Your task to perform on an android device: install app "Messenger Lite" Image 0: 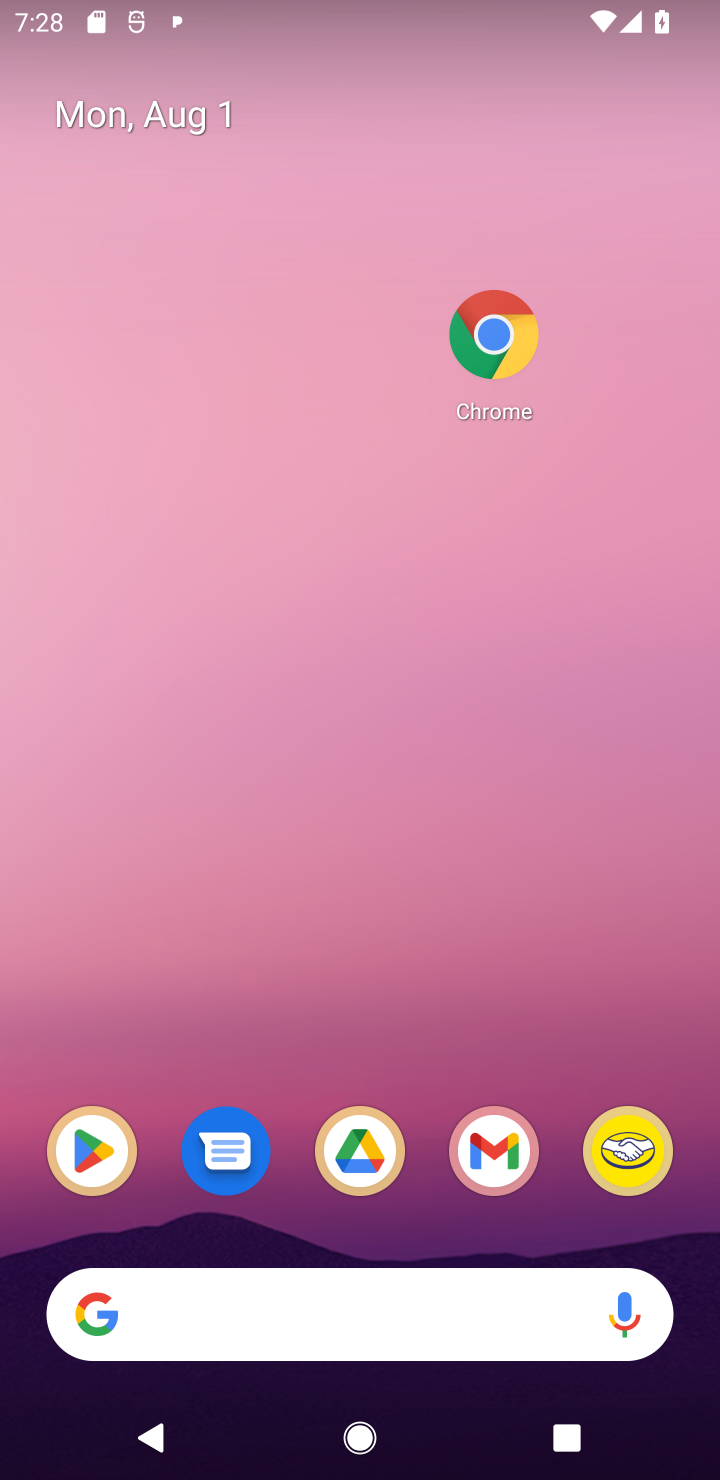
Step 0: click (106, 1173)
Your task to perform on an android device: install app "Messenger Lite" Image 1: 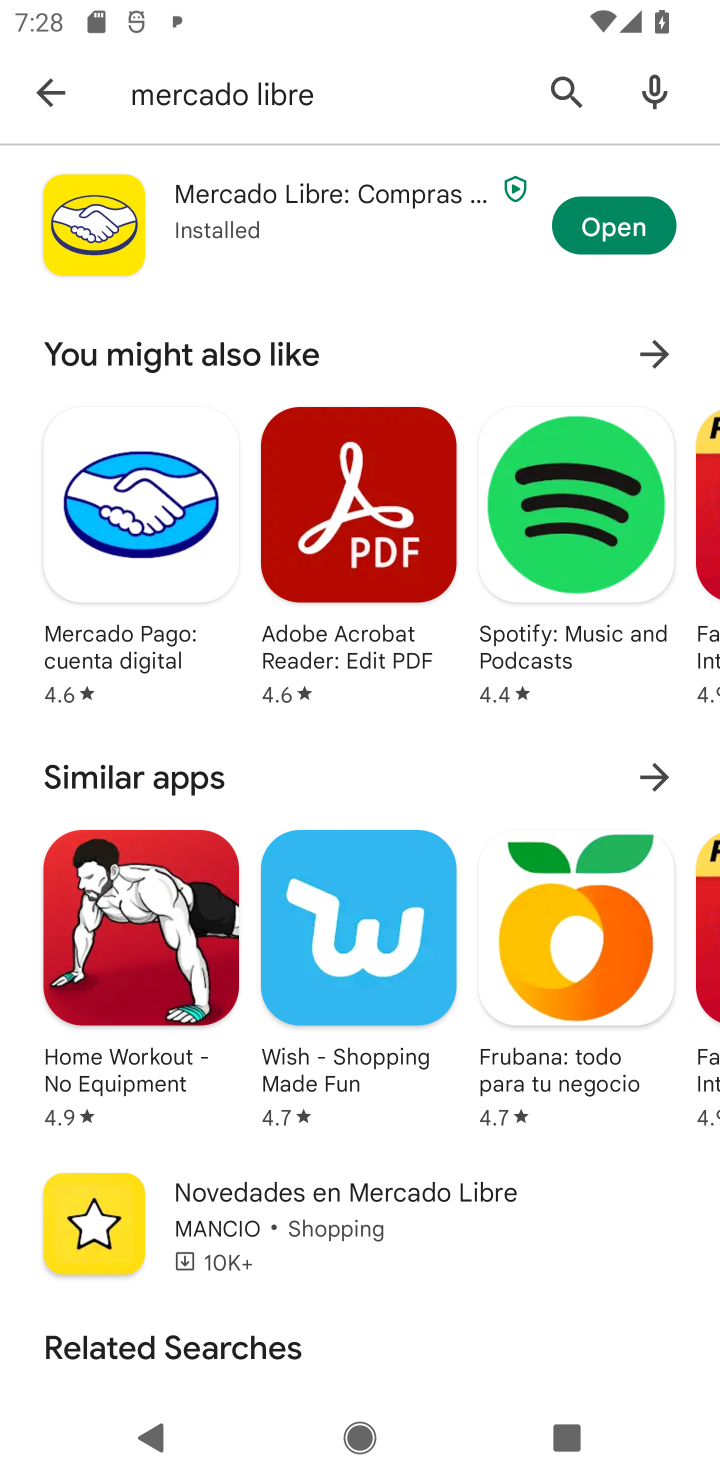
Step 1: click (543, 102)
Your task to perform on an android device: install app "Messenger Lite" Image 2: 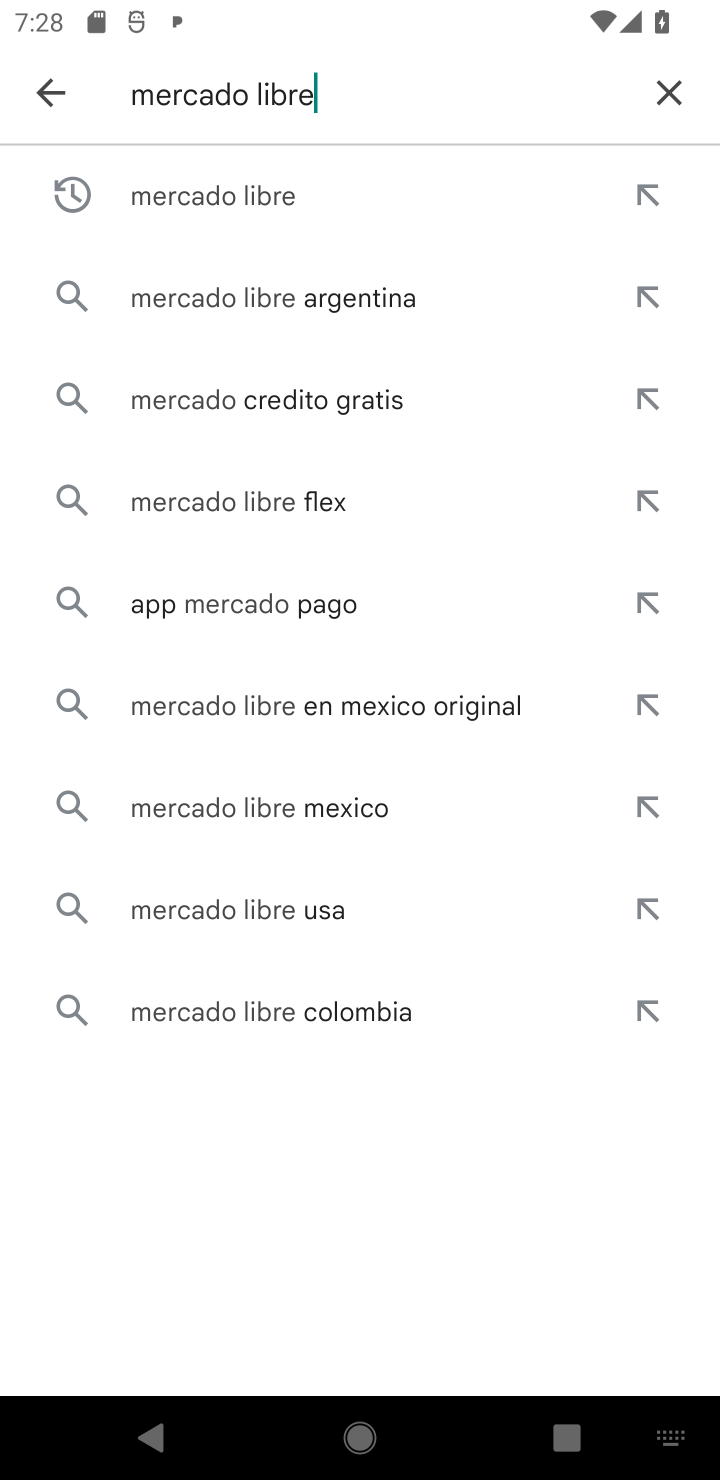
Step 2: click (668, 108)
Your task to perform on an android device: install app "Messenger Lite" Image 3: 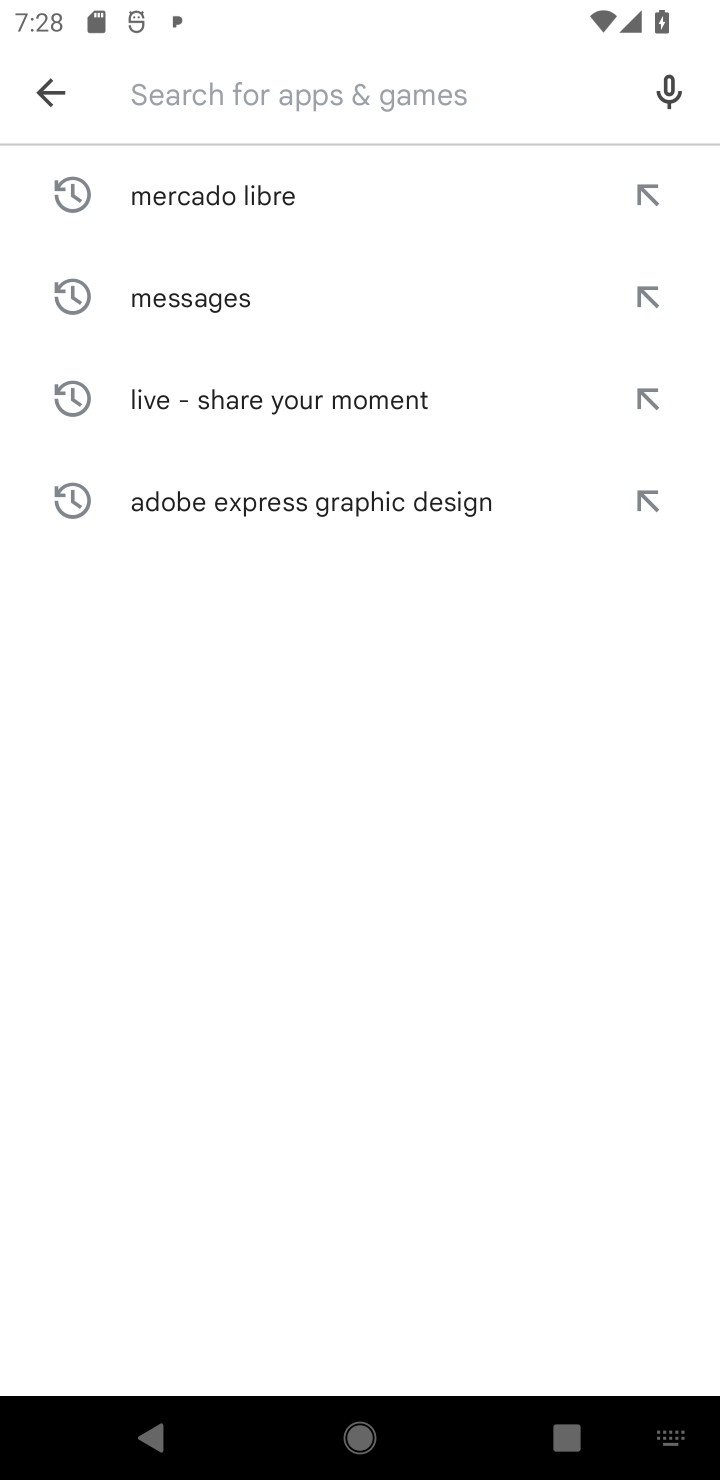
Step 3: type "Messenger Lite"
Your task to perform on an android device: install app "Messenger Lite" Image 4: 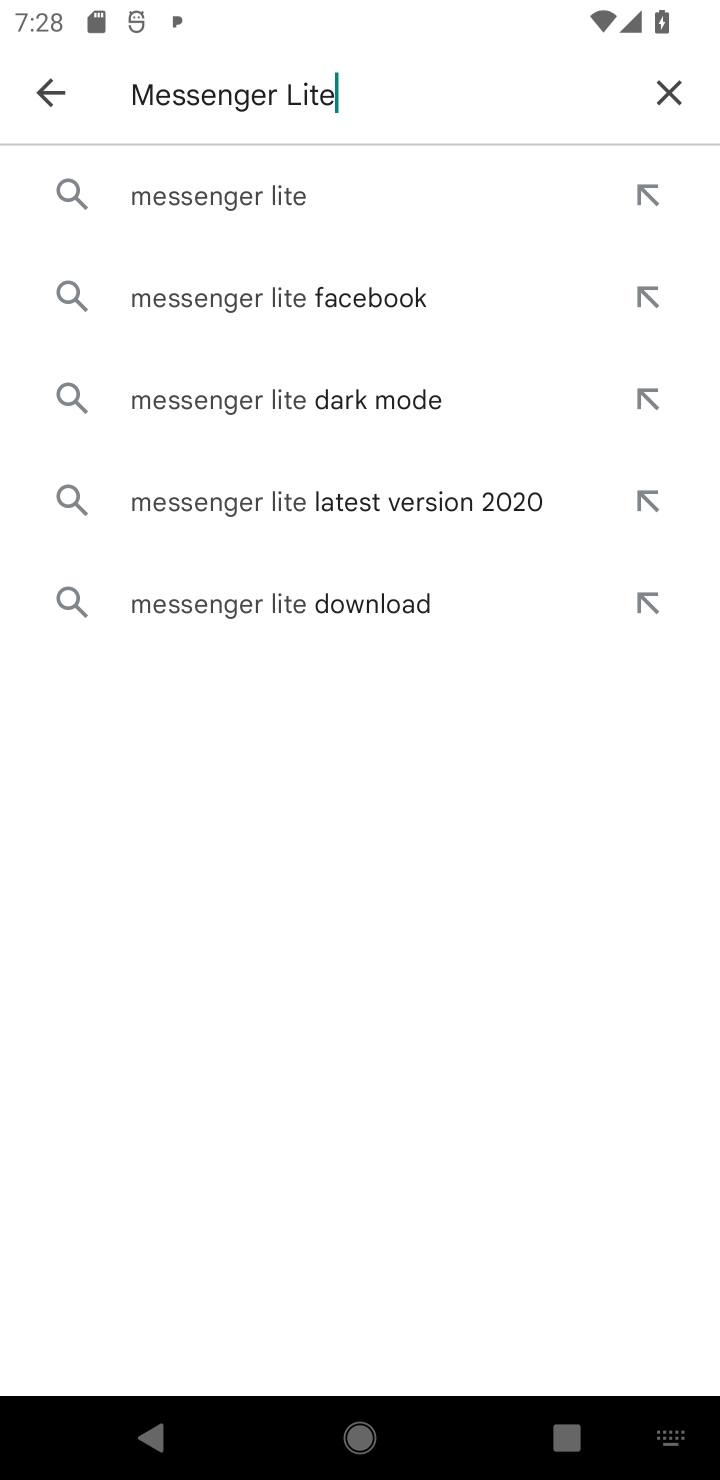
Step 4: click (262, 204)
Your task to perform on an android device: install app "Messenger Lite" Image 5: 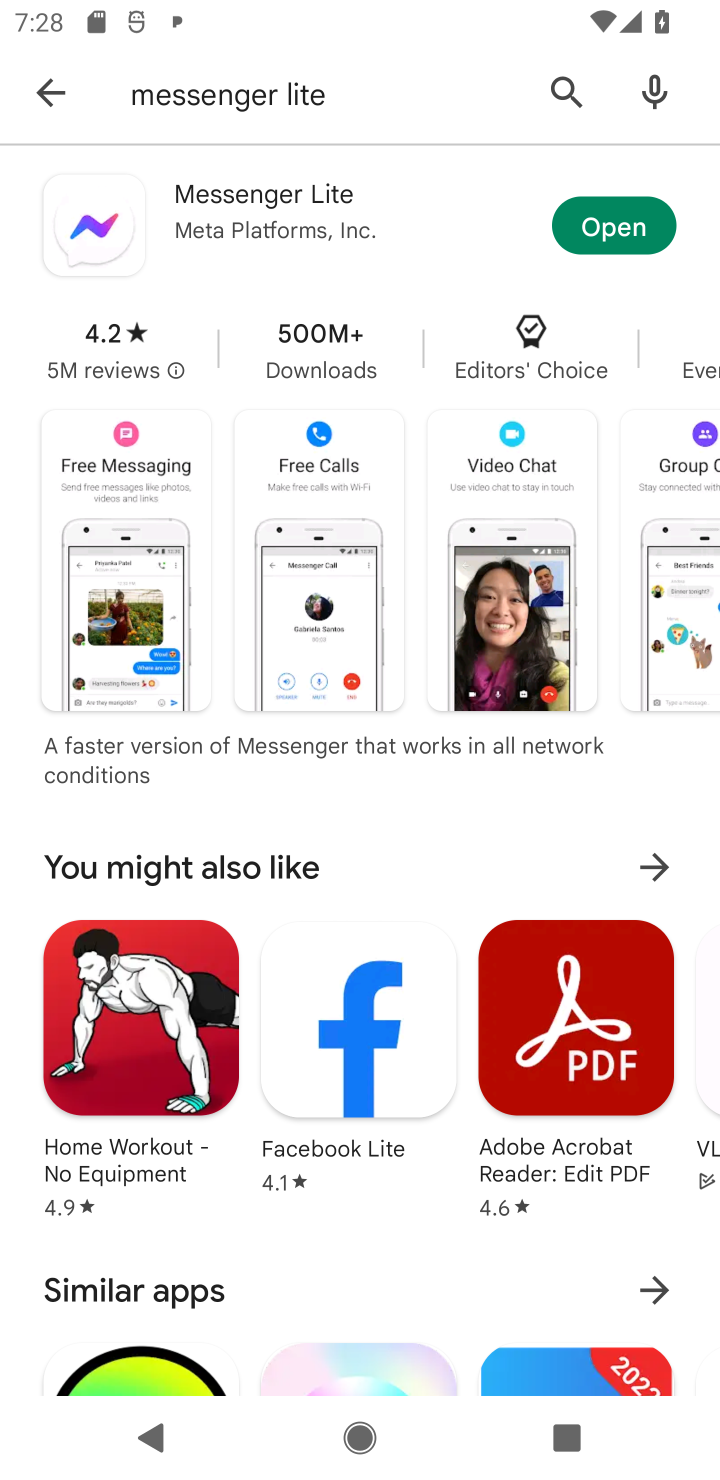
Step 5: task complete